Your task to perform on an android device: Go to accessibility settings Image 0: 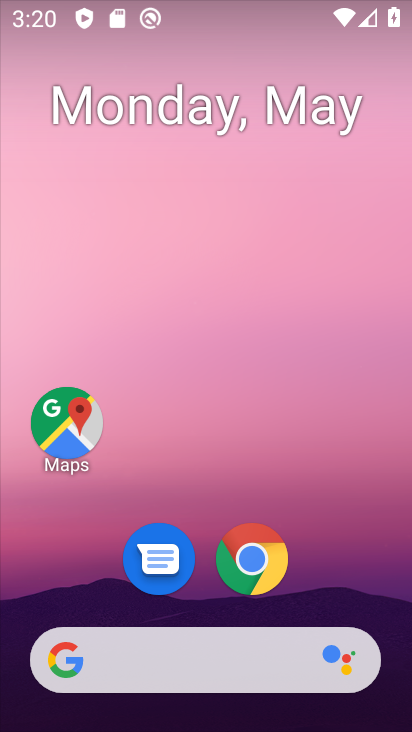
Step 0: drag from (299, 724) to (148, 9)
Your task to perform on an android device: Go to accessibility settings Image 1: 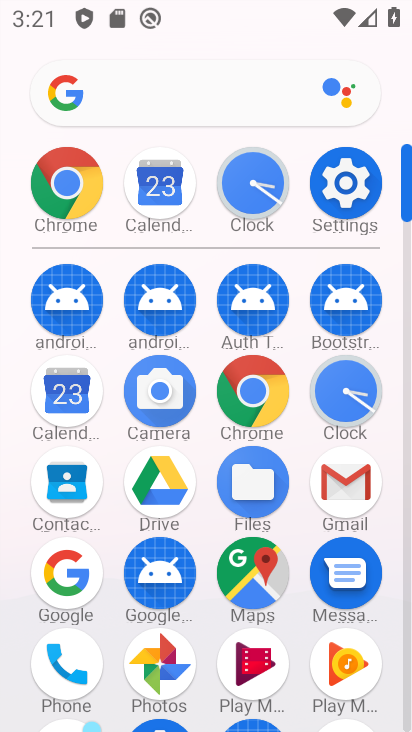
Step 1: click (322, 205)
Your task to perform on an android device: Go to accessibility settings Image 2: 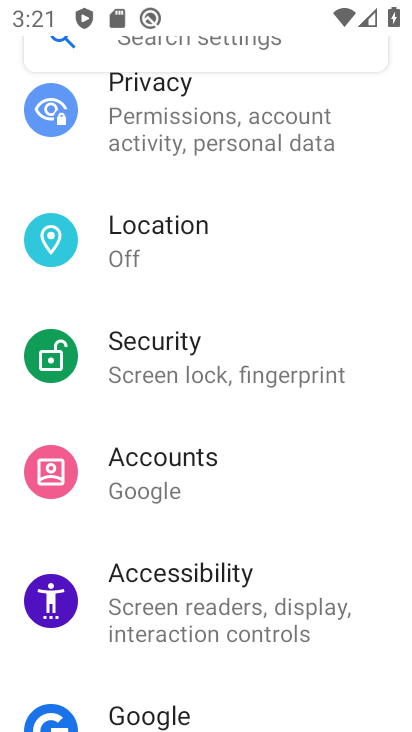
Step 2: click (160, 595)
Your task to perform on an android device: Go to accessibility settings Image 3: 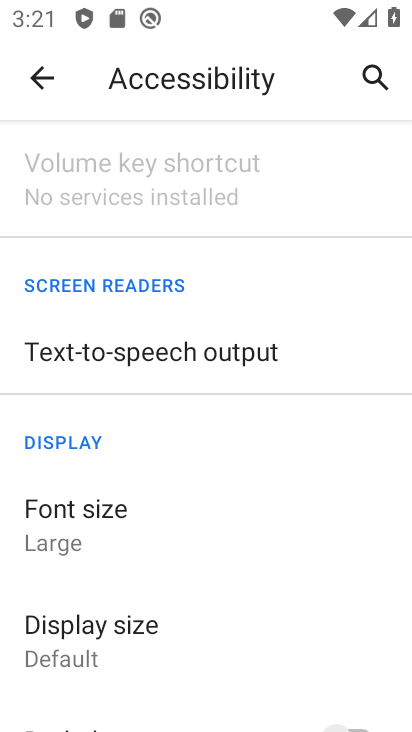
Step 3: drag from (85, 427) to (20, 199)
Your task to perform on an android device: Go to accessibility settings Image 4: 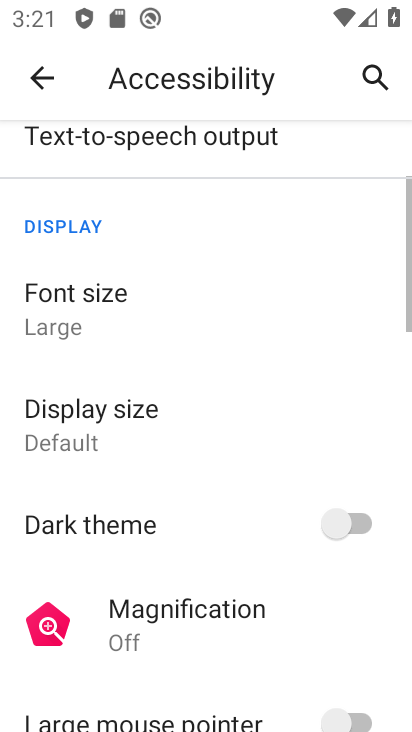
Step 4: drag from (184, 500) to (192, 196)
Your task to perform on an android device: Go to accessibility settings Image 5: 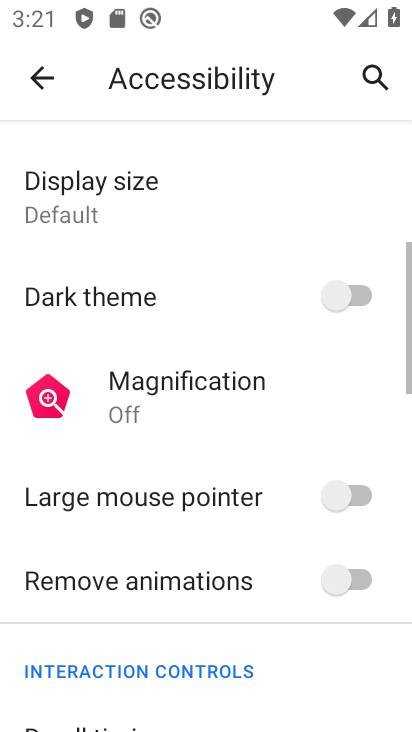
Step 5: drag from (247, 555) to (247, 247)
Your task to perform on an android device: Go to accessibility settings Image 6: 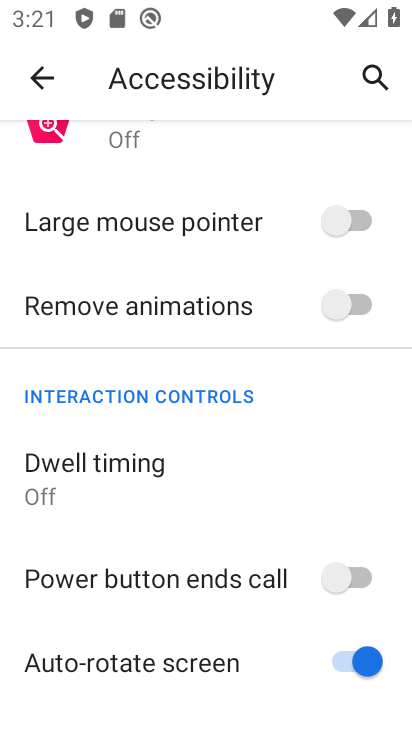
Step 6: click (41, 80)
Your task to perform on an android device: Go to accessibility settings Image 7: 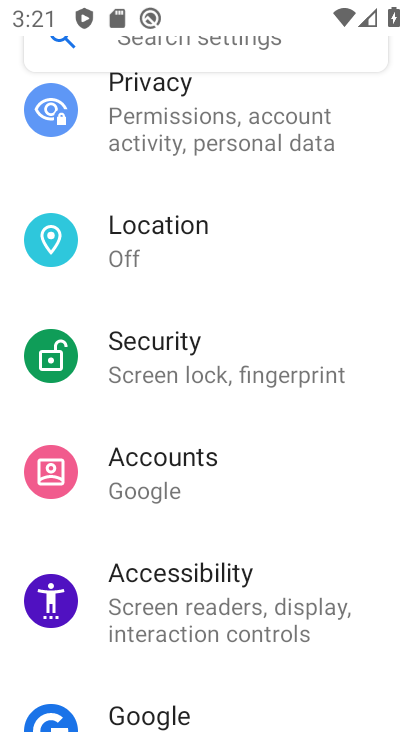
Step 7: click (145, 595)
Your task to perform on an android device: Go to accessibility settings Image 8: 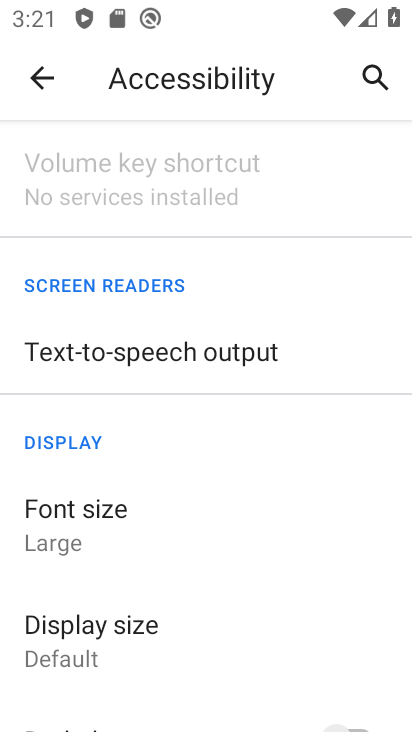
Step 8: drag from (152, 524) to (71, 215)
Your task to perform on an android device: Go to accessibility settings Image 9: 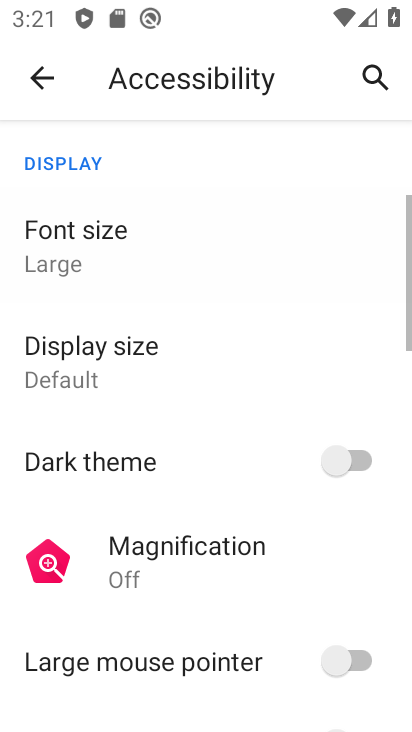
Step 9: drag from (123, 583) to (74, 230)
Your task to perform on an android device: Go to accessibility settings Image 10: 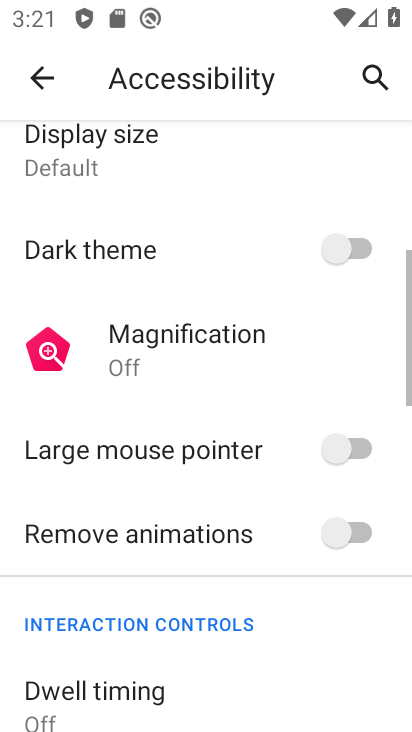
Step 10: drag from (175, 555) to (175, 170)
Your task to perform on an android device: Go to accessibility settings Image 11: 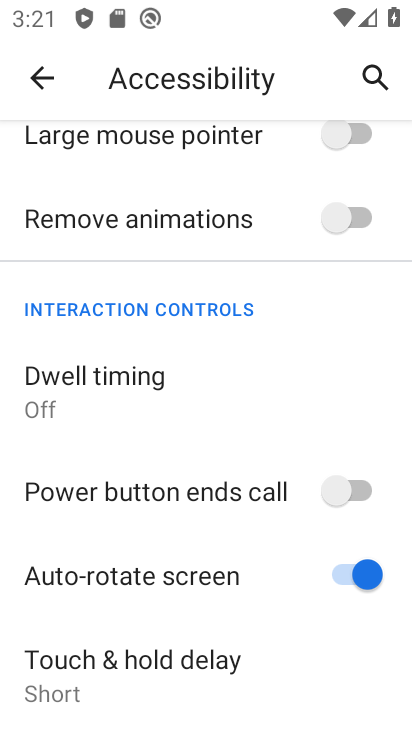
Step 11: click (41, 72)
Your task to perform on an android device: Go to accessibility settings Image 12: 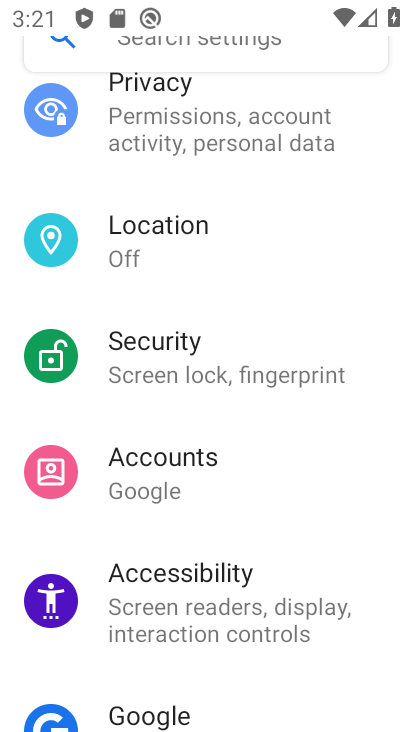
Step 12: task complete